Your task to perform on an android device: Go to display settings Image 0: 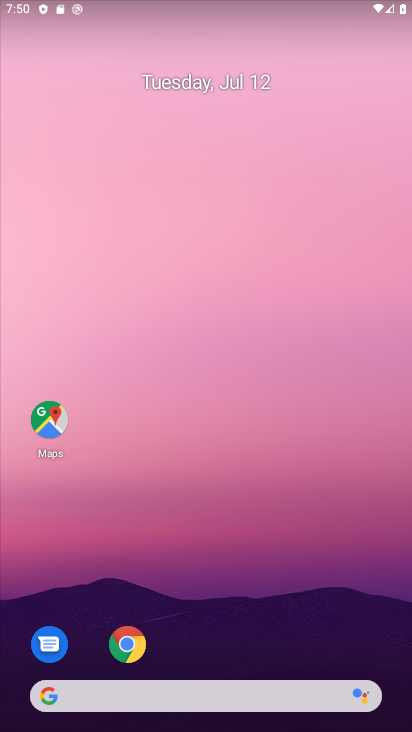
Step 0: drag from (231, 647) to (284, 108)
Your task to perform on an android device: Go to display settings Image 1: 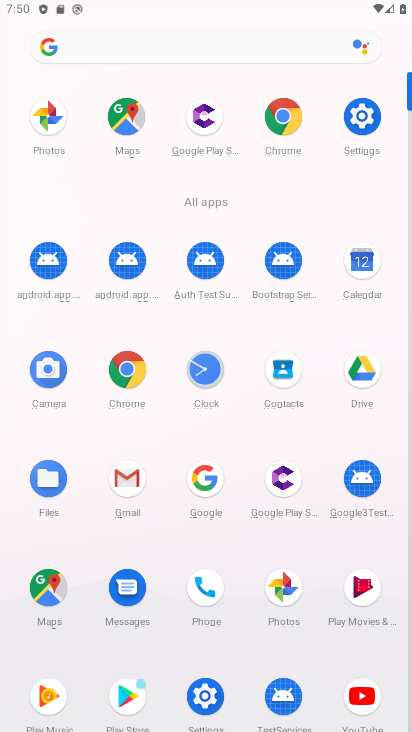
Step 1: click (363, 111)
Your task to perform on an android device: Go to display settings Image 2: 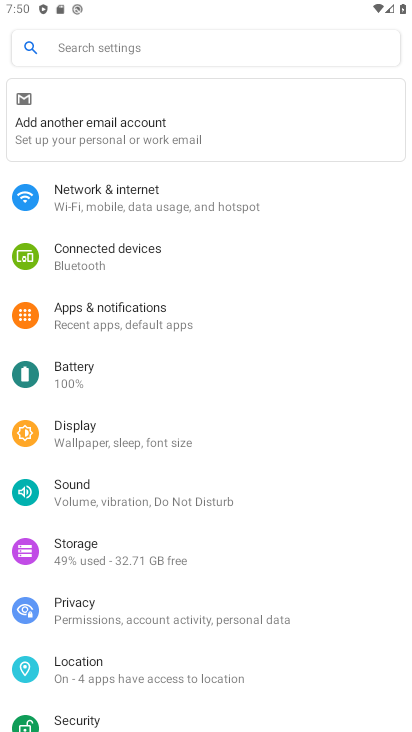
Step 2: click (129, 426)
Your task to perform on an android device: Go to display settings Image 3: 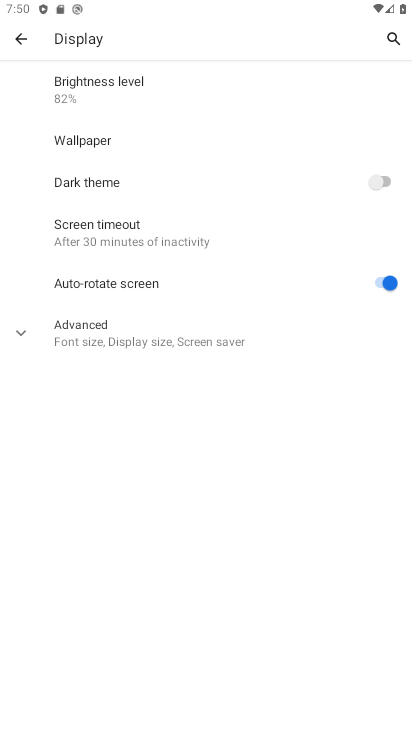
Step 3: click (27, 332)
Your task to perform on an android device: Go to display settings Image 4: 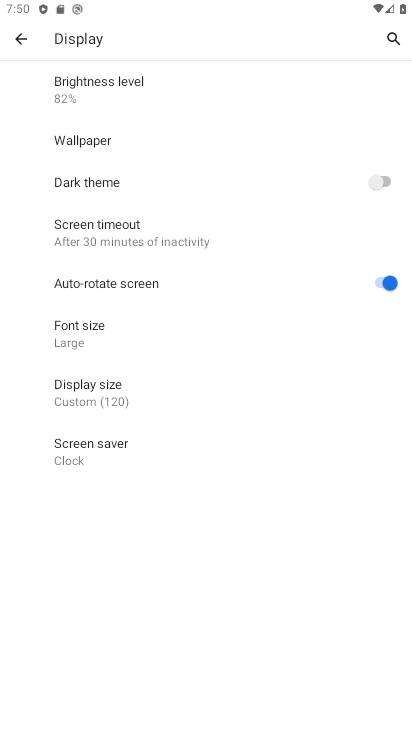
Step 4: task complete